Your task to perform on an android device: change the clock style Image 0: 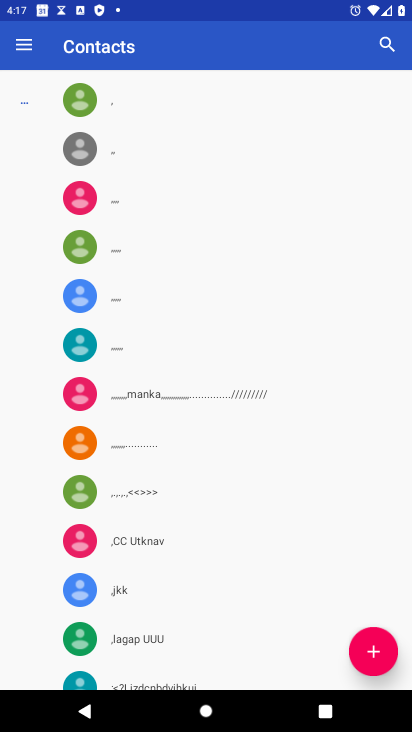
Step 0: press home button
Your task to perform on an android device: change the clock style Image 1: 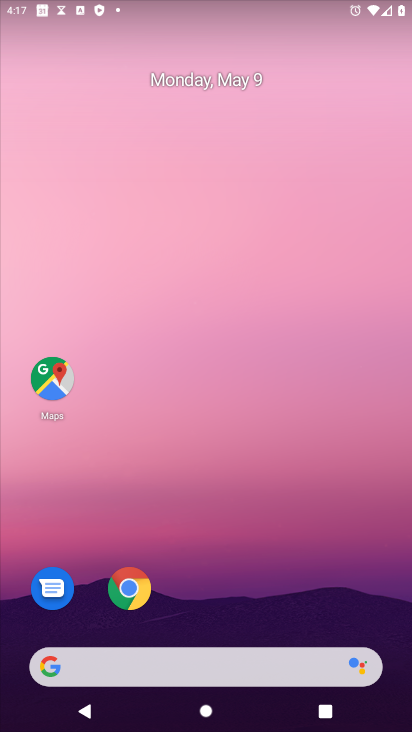
Step 1: drag from (246, 533) to (187, 110)
Your task to perform on an android device: change the clock style Image 2: 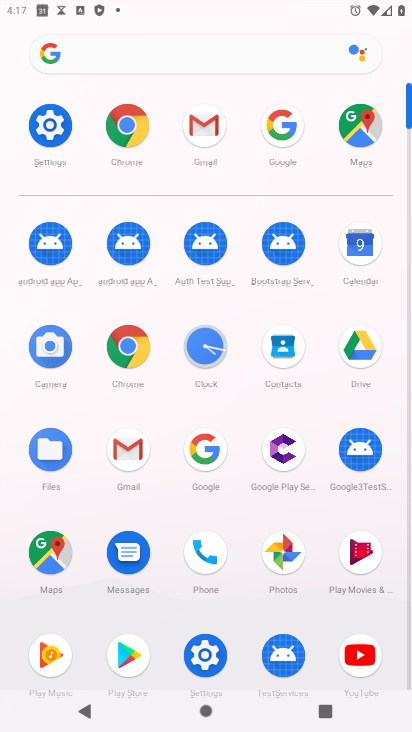
Step 2: click (211, 353)
Your task to perform on an android device: change the clock style Image 3: 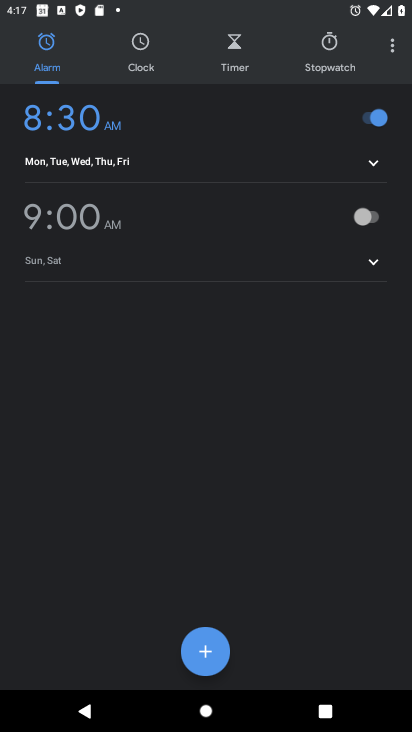
Step 3: click (385, 53)
Your task to perform on an android device: change the clock style Image 4: 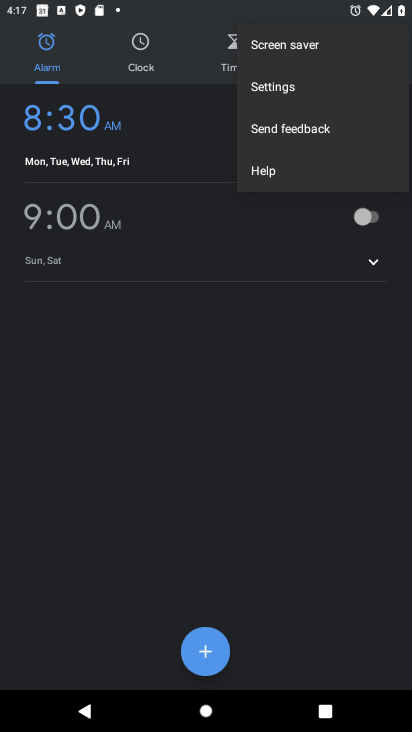
Step 4: click (266, 87)
Your task to perform on an android device: change the clock style Image 5: 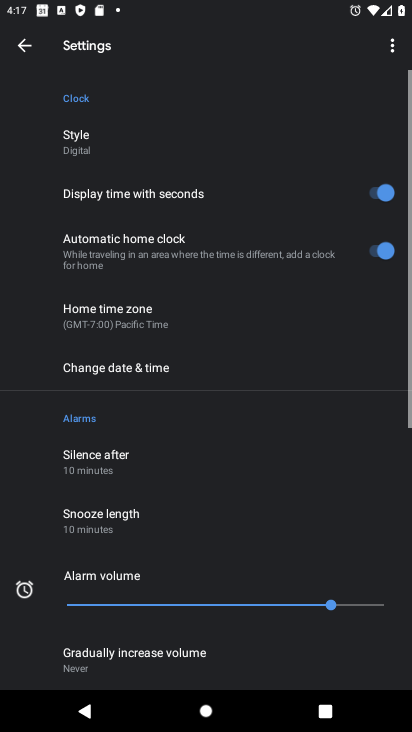
Step 5: click (109, 137)
Your task to perform on an android device: change the clock style Image 6: 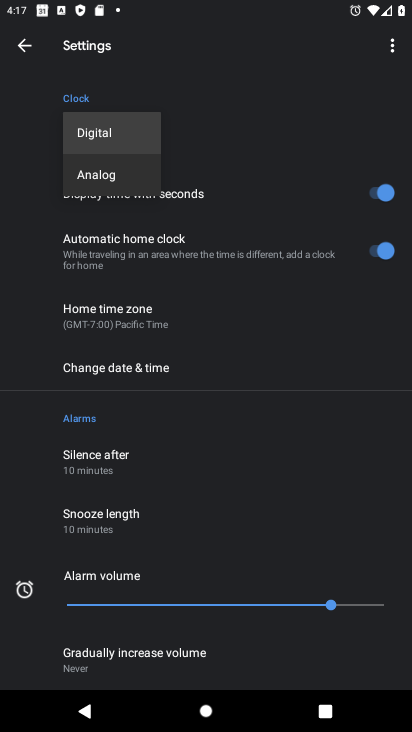
Step 6: click (140, 178)
Your task to perform on an android device: change the clock style Image 7: 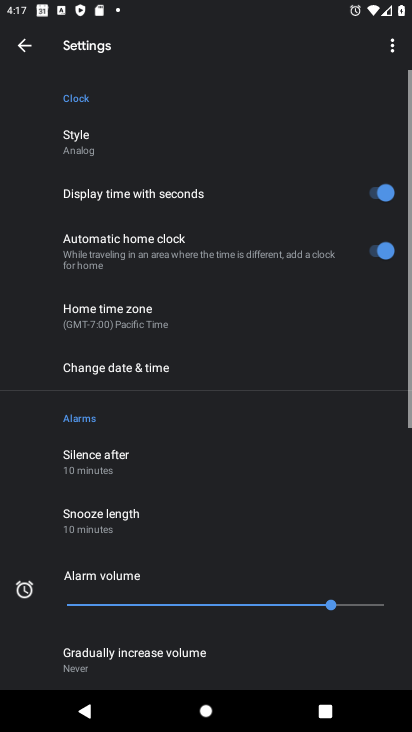
Step 7: task complete